Your task to perform on an android device: Is it going to rain today? Image 0: 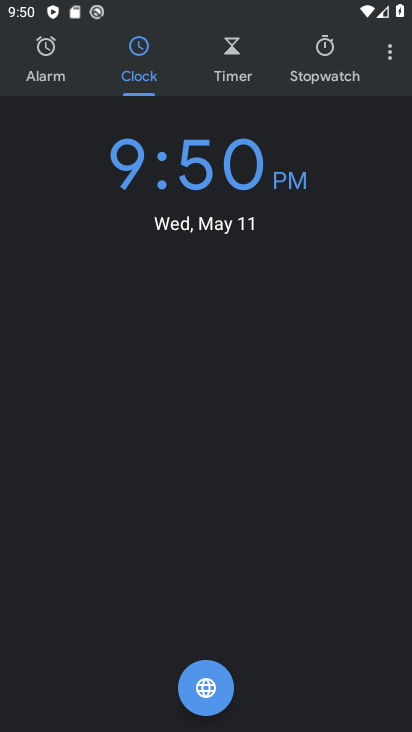
Step 0: press home button
Your task to perform on an android device: Is it going to rain today? Image 1: 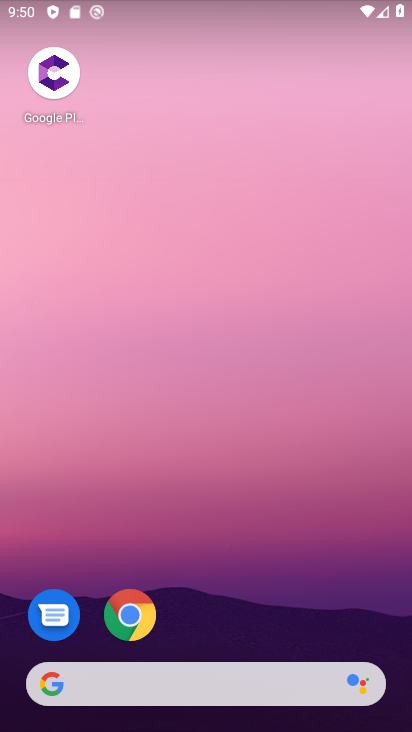
Step 1: drag from (255, 445) to (253, 0)
Your task to perform on an android device: Is it going to rain today? Image 2: 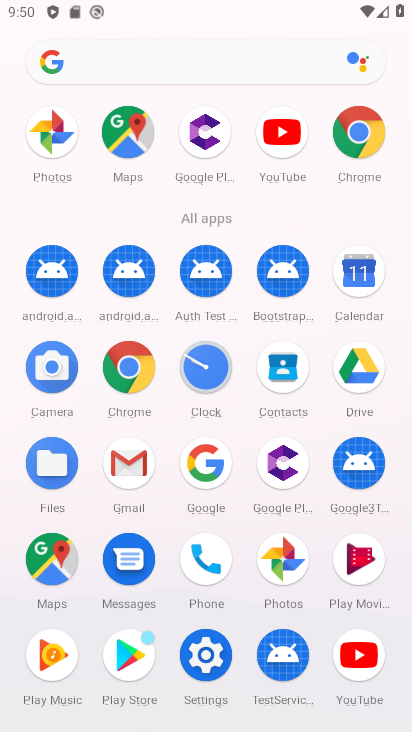
Step 2: click (357, 123)
Your task to perform on an android device: Is it going to rain today? Image 3: 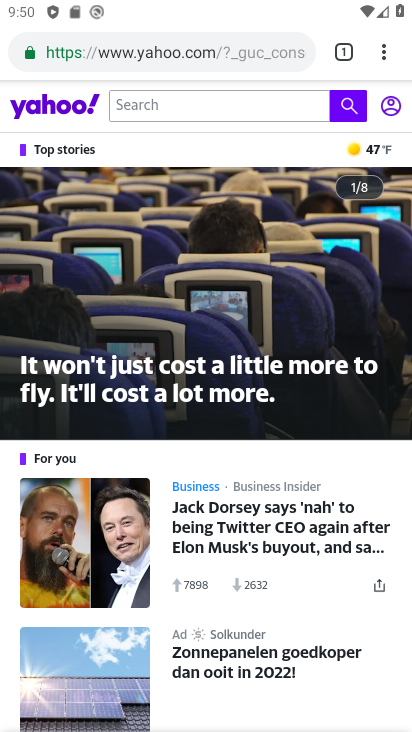
Step 3: click (138, 61)
Your task to perform on an android device: Is it going to rain today? Image 4: 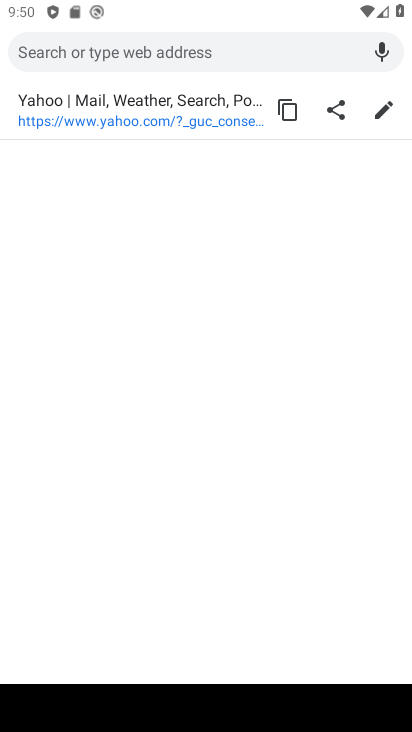
Step 4: type "weather"
Your task to perform on an android device: Is it going to rain today? Image 5: 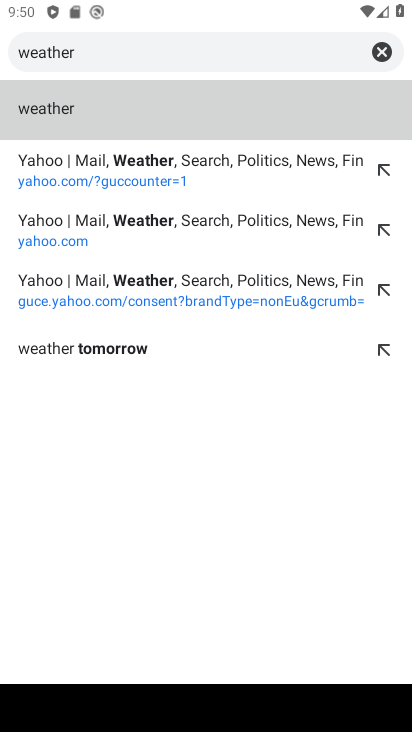
Step 5: click (77, 110)
Your task to perform on an android device: Is it going to rain today? Image 6: 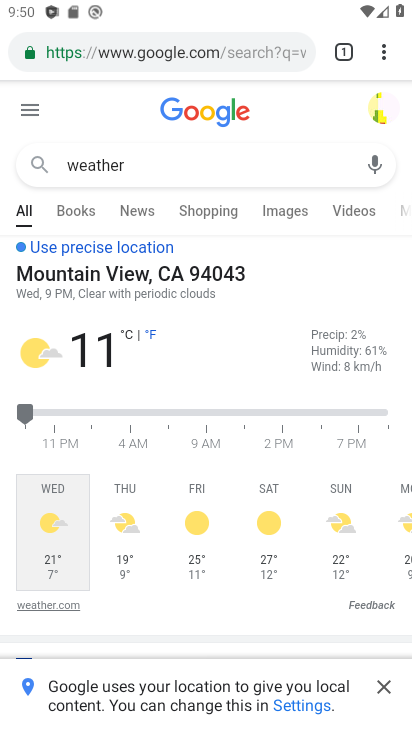
Step 6: task complete